Your task to perform on an android device: set default search engine in the chrome app Image 0: 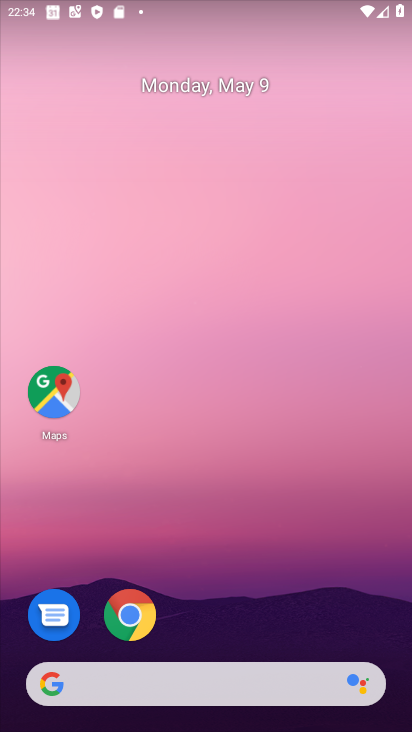
Step 0: click (135, 615)
Your task to perform on an android device: set default search engine in the chrome app Image 1: 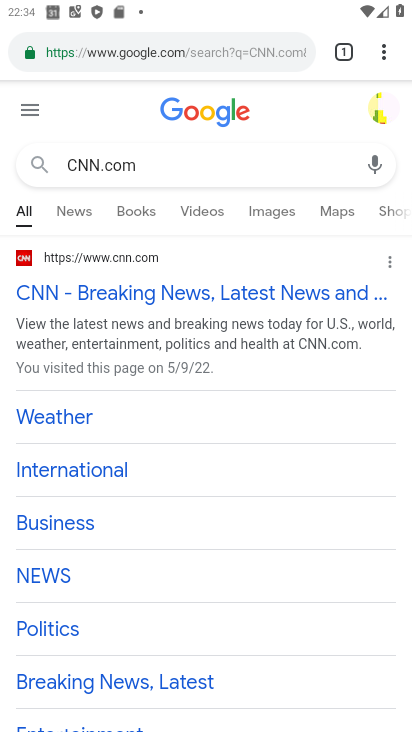
Step 1: click (385, 51)
Your task to perform on an android device: set default search engine in the chrome app Image 2: 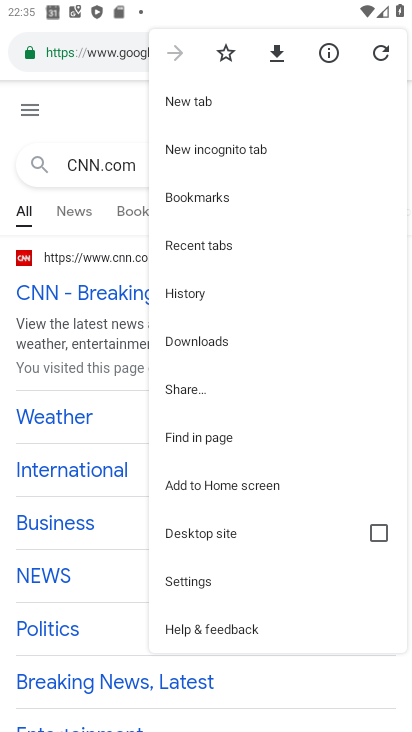
Step 2: click (230, 583)
Your task to perform on an android device: set default search engine in the chrome app Image 3: 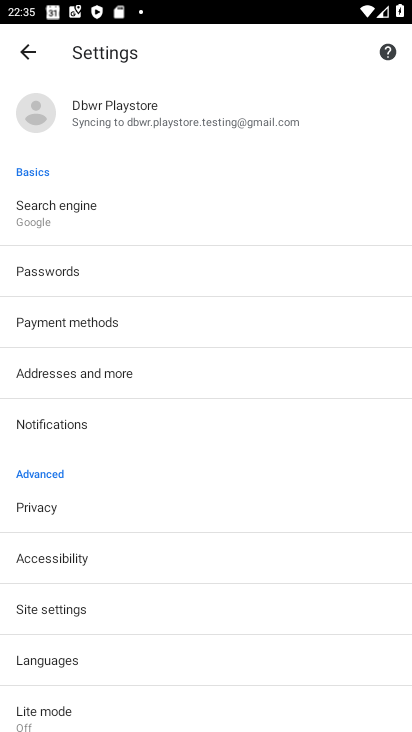
Step 3: click (105, 222)
Your task to perform on an android device: set default search engine in the chrome app Image 4: 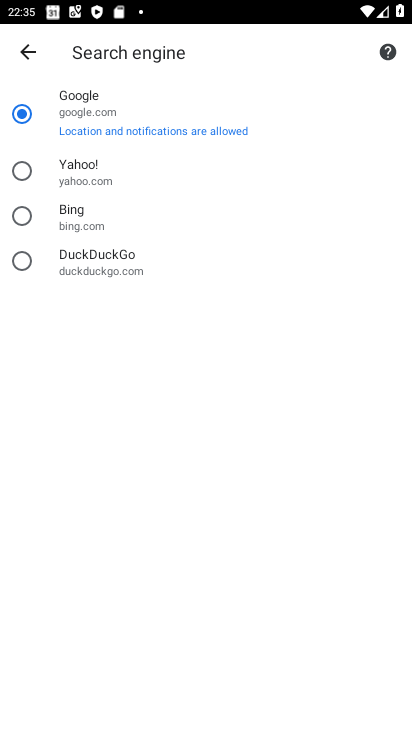
Step 4: task complete